Your task to perform on an android device: choose inbox layout in the gmail app Image 0: 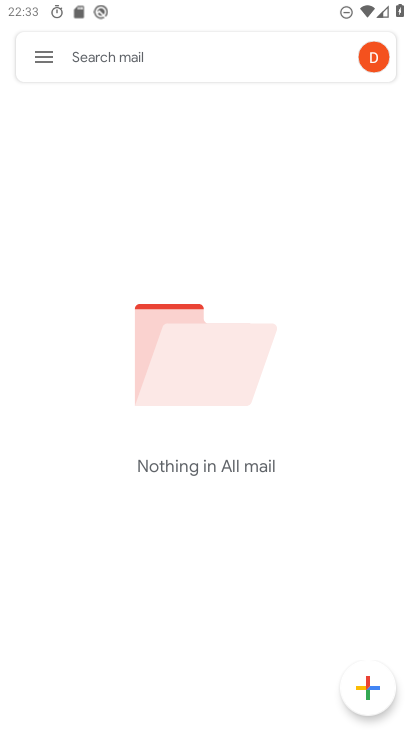
Step 0: press home button
Your task to perform on an android device: choose inbox layout in the gmail app Image 1: 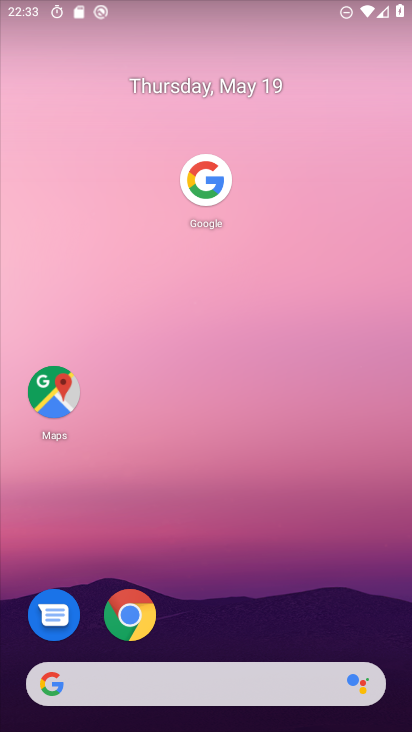
Step 1: drag from (237, 597) to (257, 105)
Your task to perform on an android device: choose inbox layout in the gmail app Image 2: 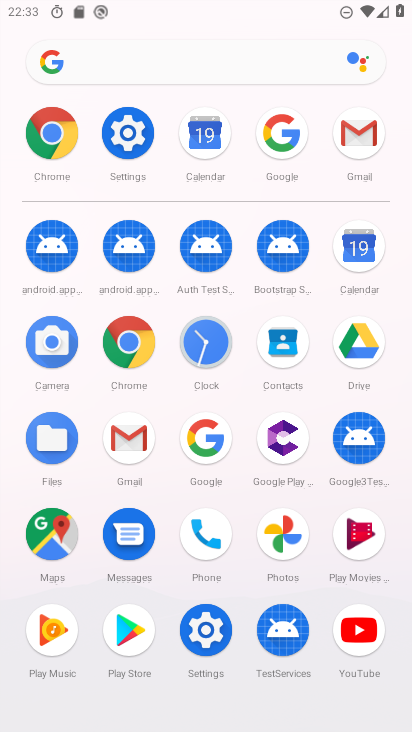
Step 2: click (354, 137)
Your task to perform on an android device: choose inbox layout in the gmail app Image 3: 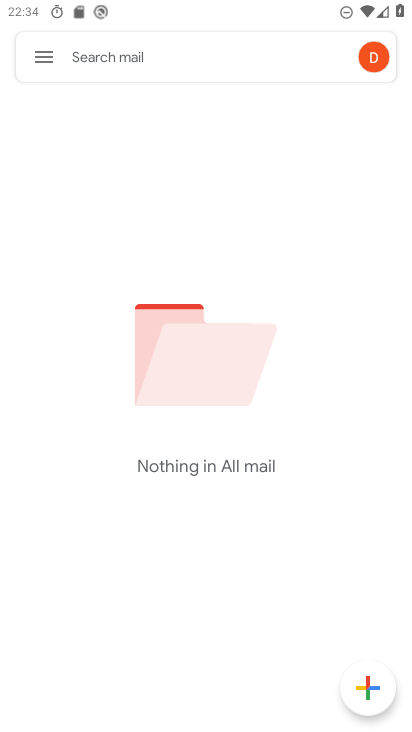
Step 3: click (37, 60)
Your task to perform on an android device: choose inbox layout in the gmail app Image 4: 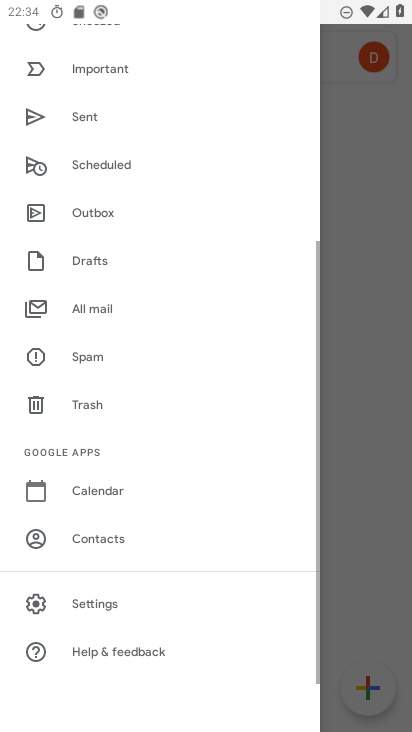
Step 4: click (89, 603)
Your task to perform on an android device: choose inbox layout in the gmail app Image 5: 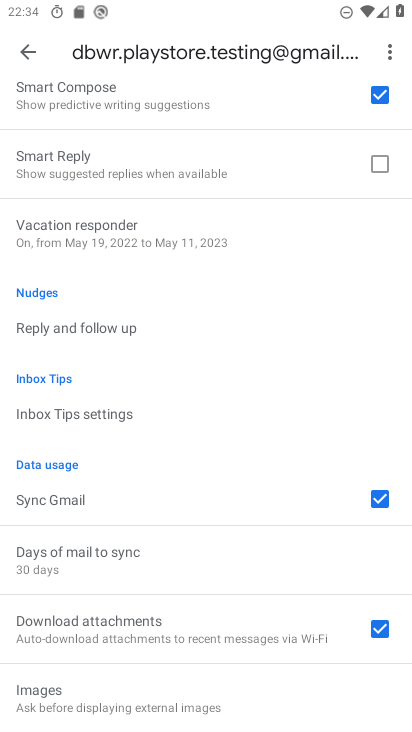
Step 5: drag from (123, 151) to (160, 340)
Your task to perform on an android device: choose inbox layout in the gmail app Image 6: 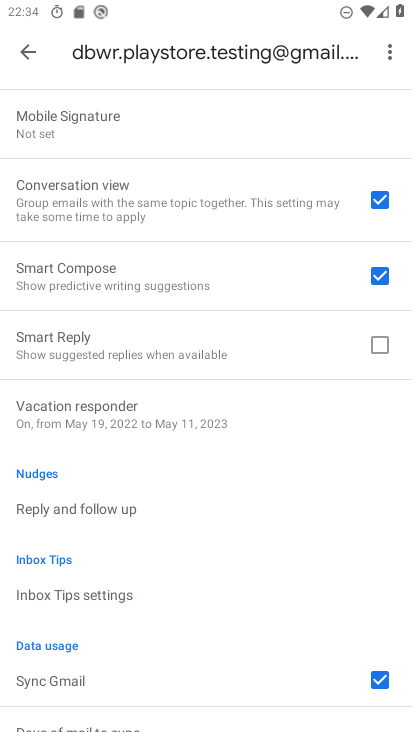
Step 6: drag from (117, 162) to (227, 579)
Your task to perform on an android device: choose inbox layout in the gmail app Image 7: 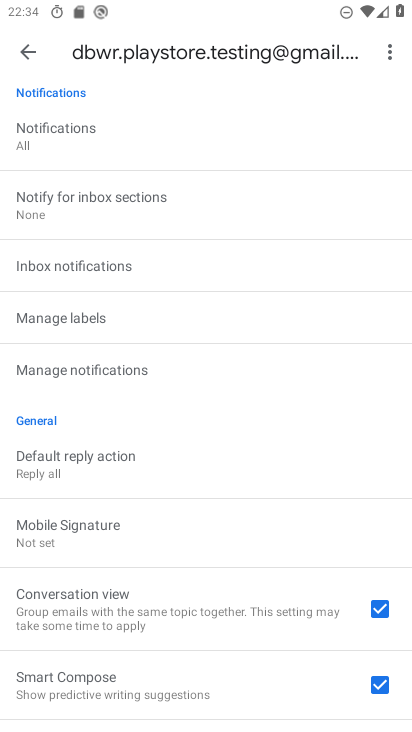
Step 7: drag from (89, 183) to (125, 397)
Your task to perform on an android device: choose inbox layout in the gmail app Image 8: 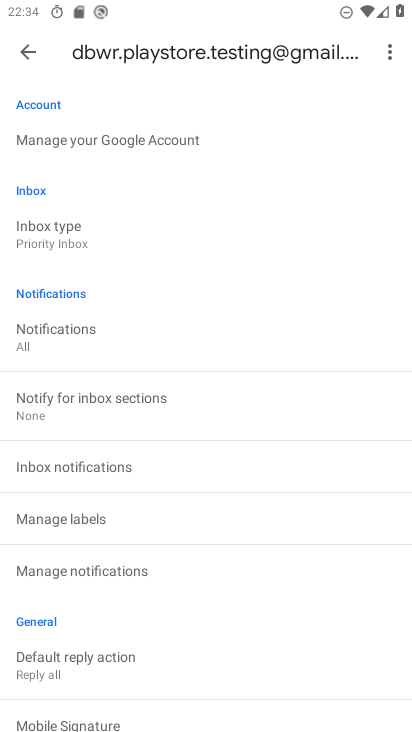
Step 8: click (76, 230)
Your task to perform on an android device: choose inbox layout in the gmail app Image 9: 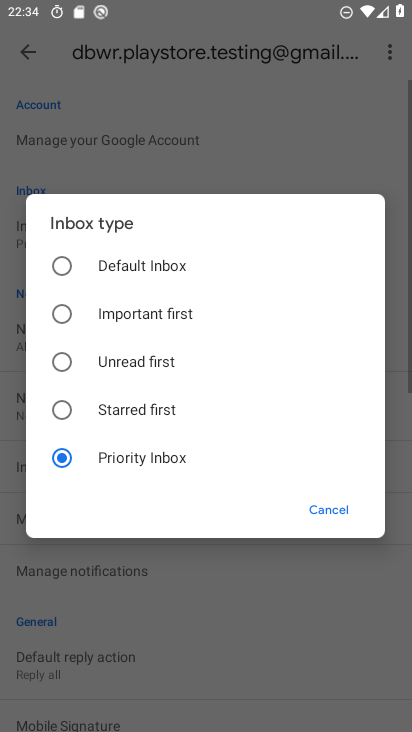
Step 9: click (68, 280)
Your task to perform on an android device: choose inbox layout in the gmail app Image 10: 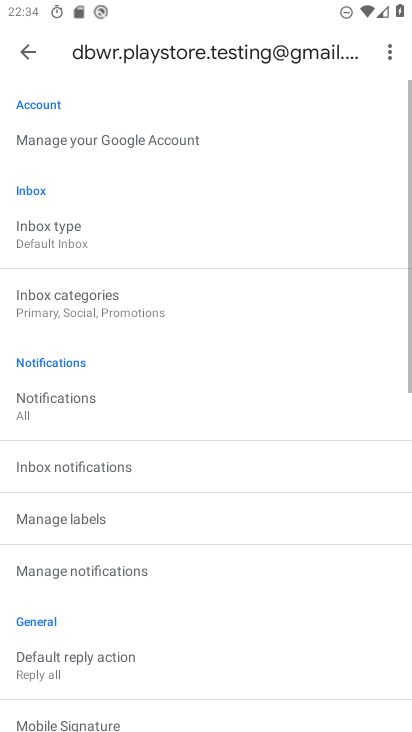
Step 10: task complete